Your task to perform on an android device: What's the news in China? Image 0: 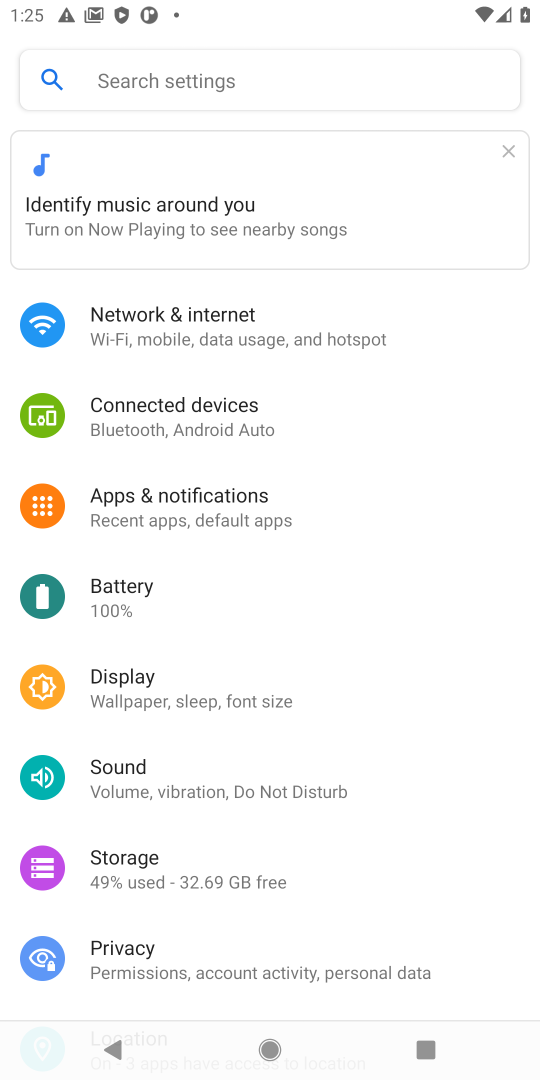
Step 0: press home button
Your task to perform on an android device: What's the news in China? Image 1: 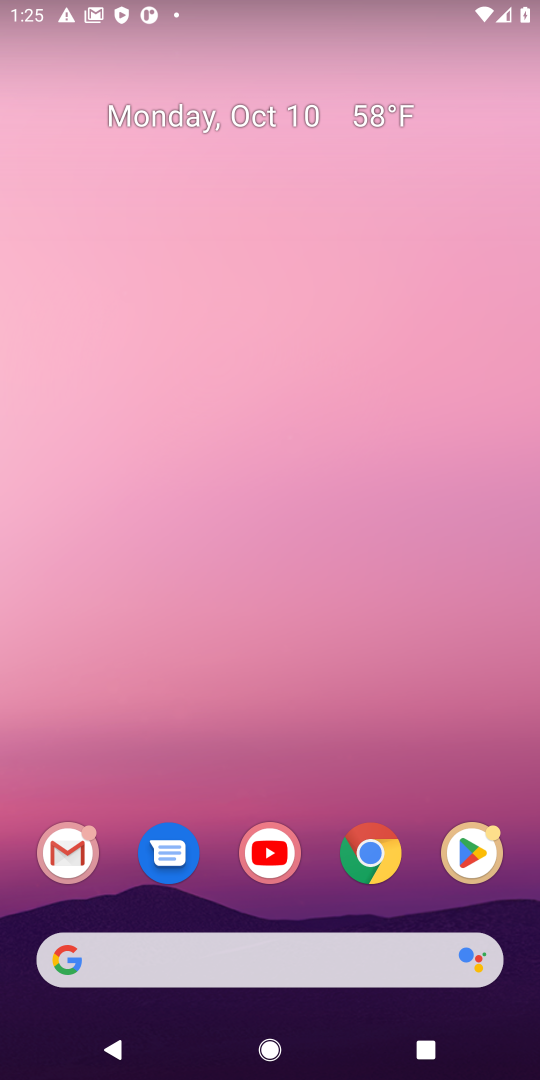
Step 1: click (367, 850)
Your task to perform on an android device: What's the news in China? Image 2: 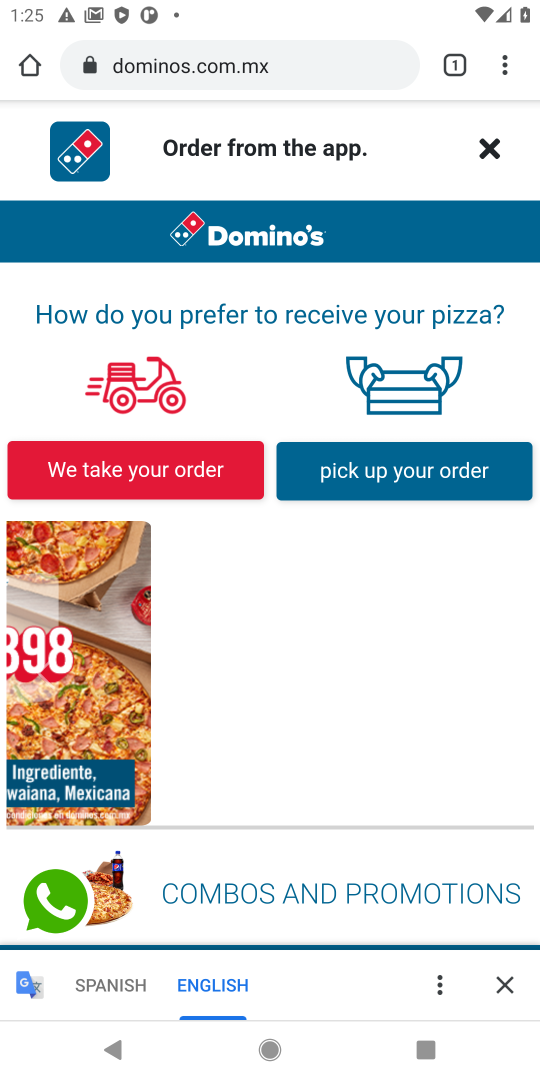
Step 2: click (255, 65)
Your task to perform on an android device: What's the news in China? Image 3: 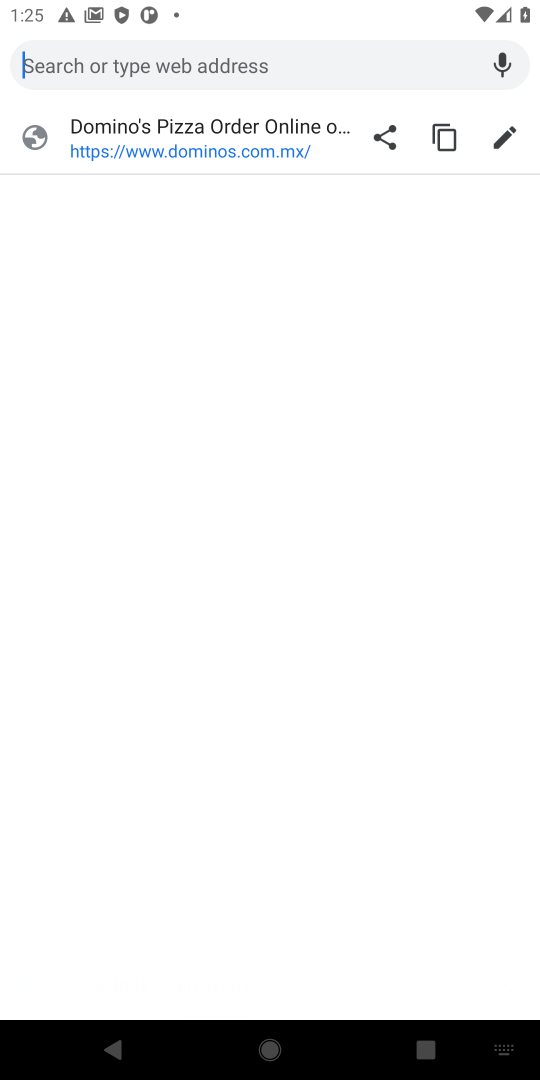
Step 3: type "China"
Your task to perform on an android device: What's the news in China? Image 4: 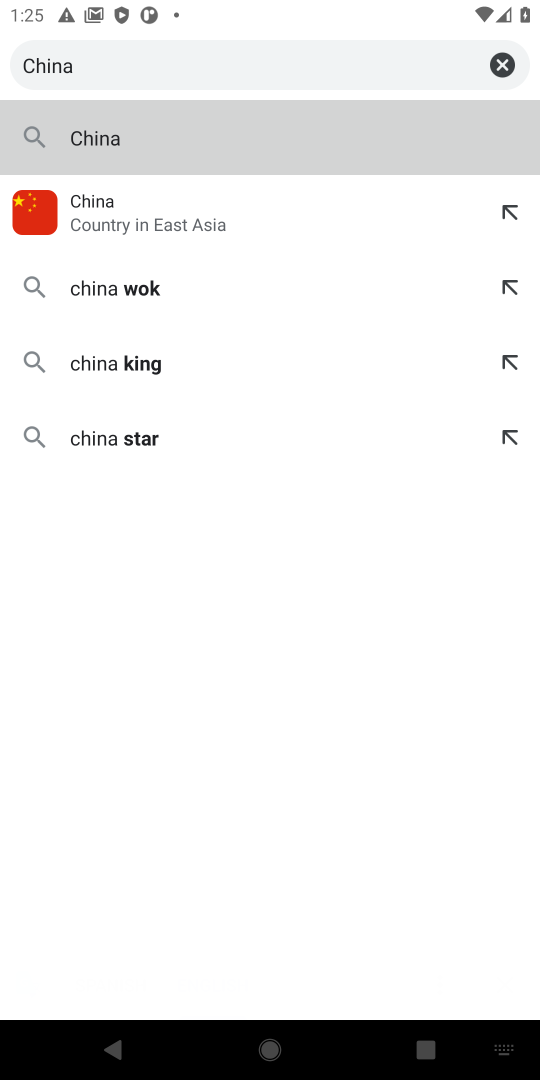
Step 4: type ""
Your task to perform on an android device: What's the news in China? Image 5: 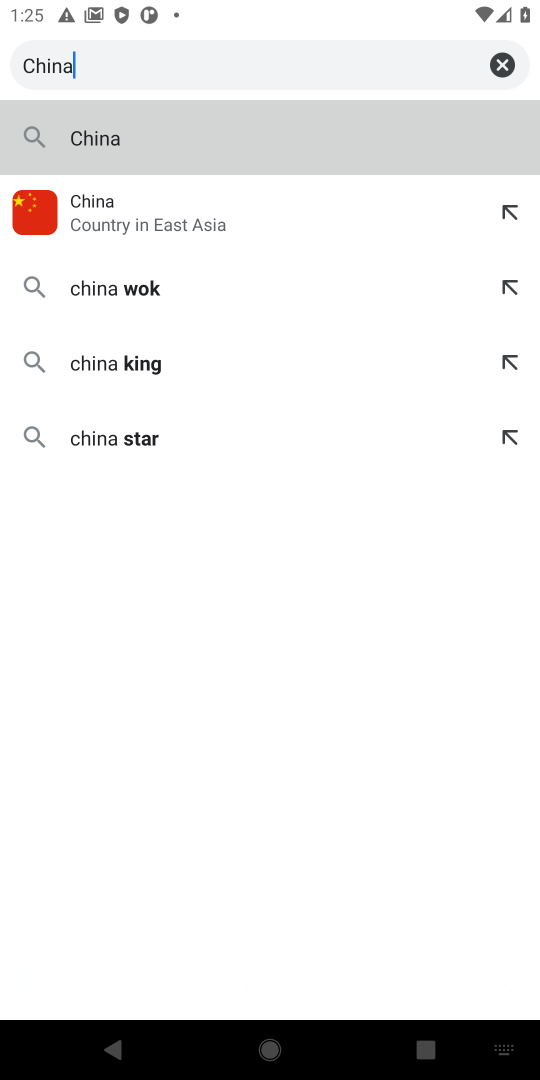
Step 5: click (124, 217)
Your task to perform on an android device: What's the news in China? Image 6: 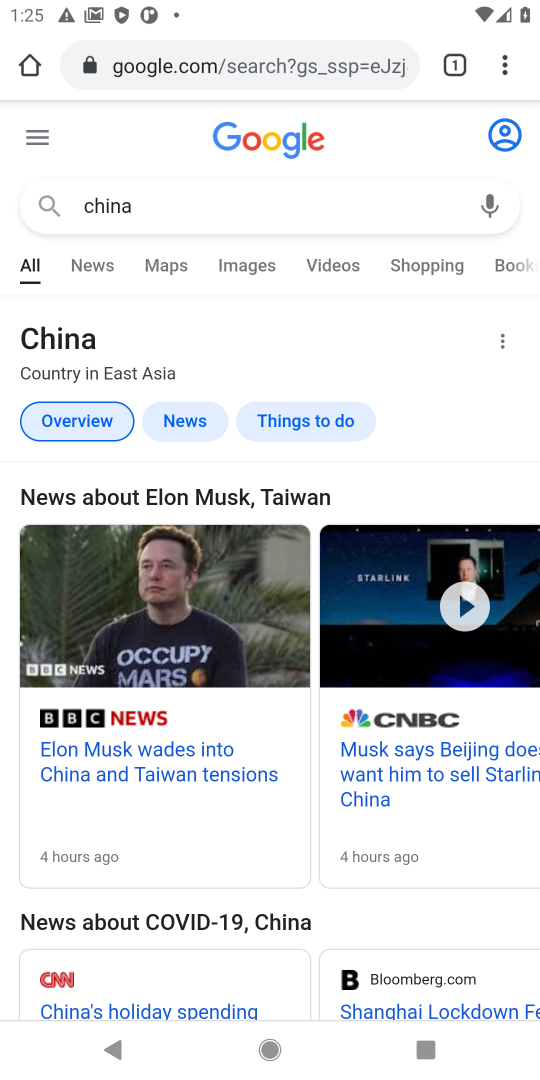
Step 6: click (88, 265)
Your task to perform on an android device: What's the news in China? Image 7: 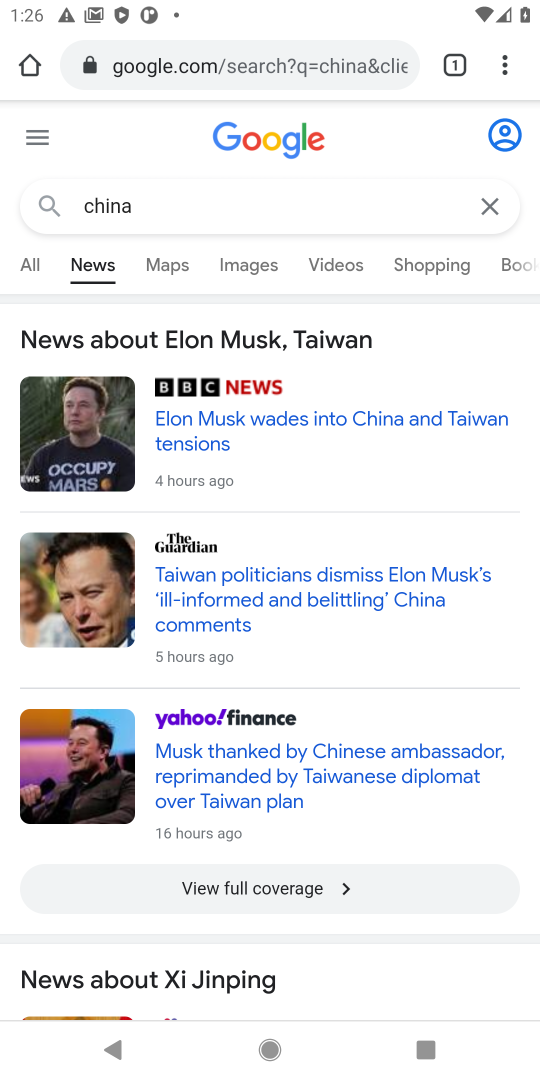
Step 7: task complete